Your task to perform on an android device: Go to privacy settings Image 0: 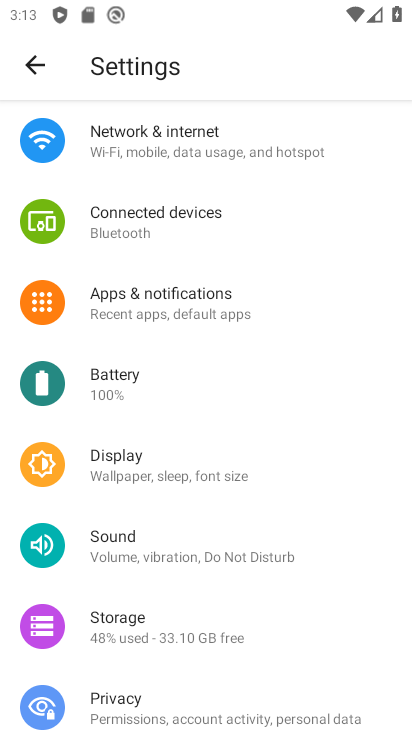
Step 0: drag from (279, 301) to (288, 262)
Your task to perform on an android device: Go to privacy settings Image 1: 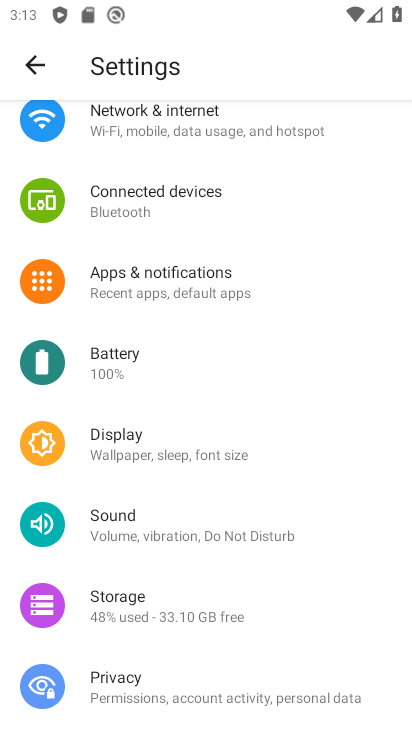
Step 1: click (147, 697)
Your task to perform on an android device: Go to privacy settings Image 2: 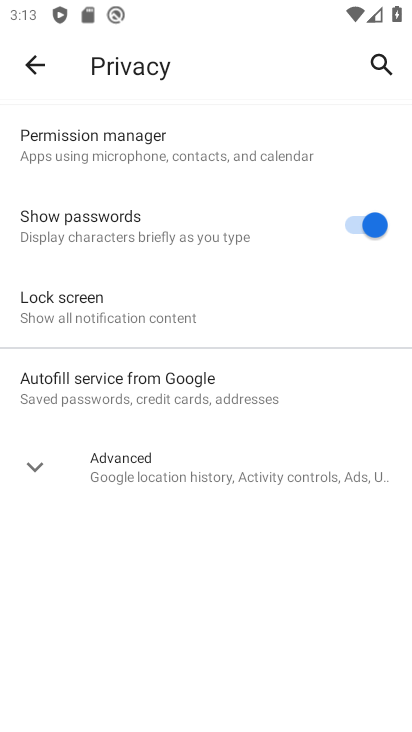
Step 2: task complete